Your task to perform on an android device: change the clock display to show seconds Image 0: 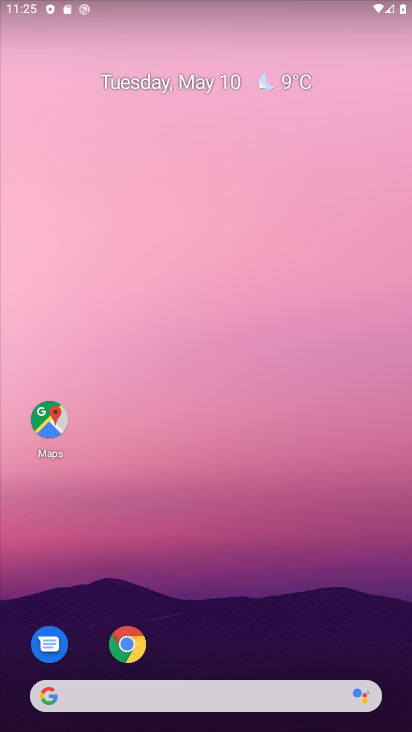
Step 0: drag from (210, 603) to (317, 8)
Your task to perform on an android device: change the clock display to show seconds Image 1: 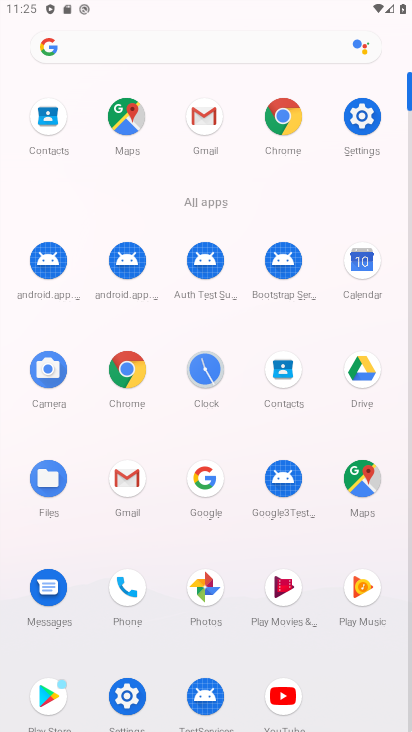
Step 1: click (204, 384)
Your task to perform on an android device: change the clock display to show seconds Image 2: 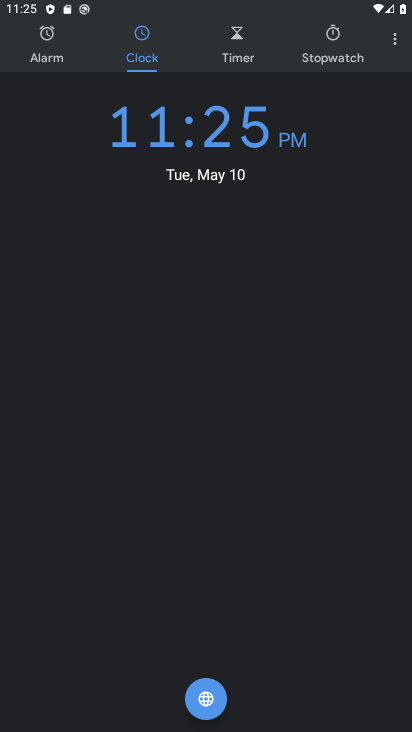
Step 2: click (386, 47)
Your task to perform on an android device: change the clock display to show seconds Image 3: 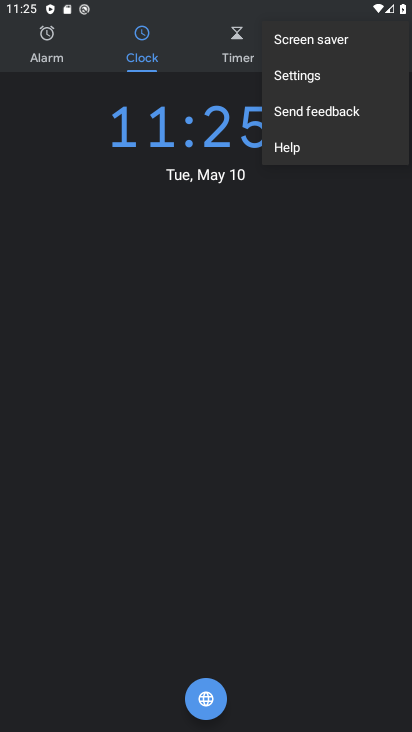
Step 3: click (303, 73)
Your task to perform on an android device: change the clock display to show seconds Image 4: 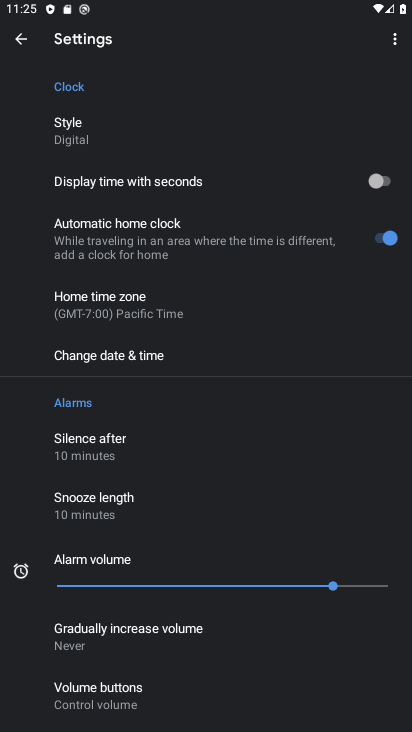
Step 4: click (63, 142)
Your task to perform on an android device: change the clock display to show seconds Image 5: 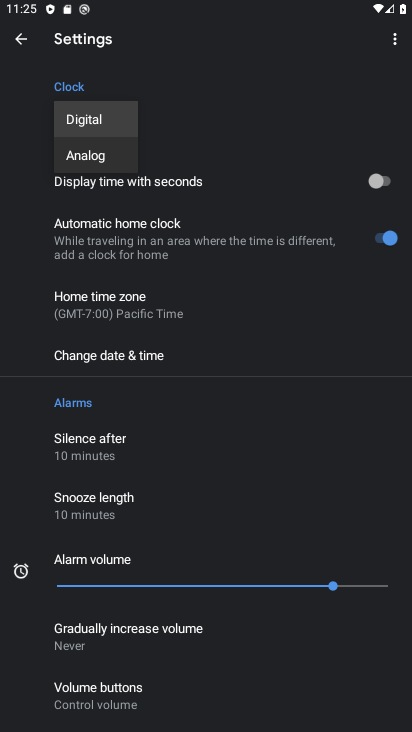
Step 5: click (101, 159)
Your task to perform on an android device: change the clock display to show seconds Image 6: 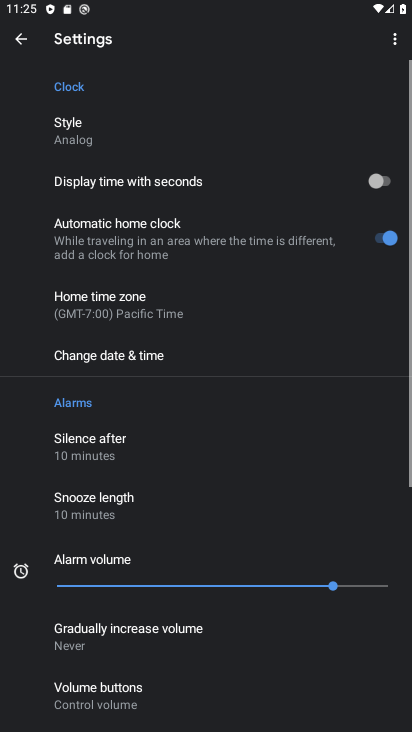
Step 6: click (391, 182)
Your task to perform on an android device: change the clock display to show seconds Image 7: 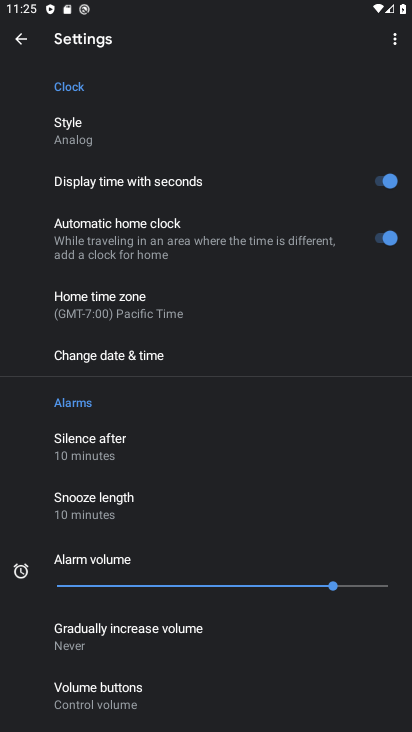
Step 7: task complete